Your task to perform on an android device: Go to Amazon Image 0: 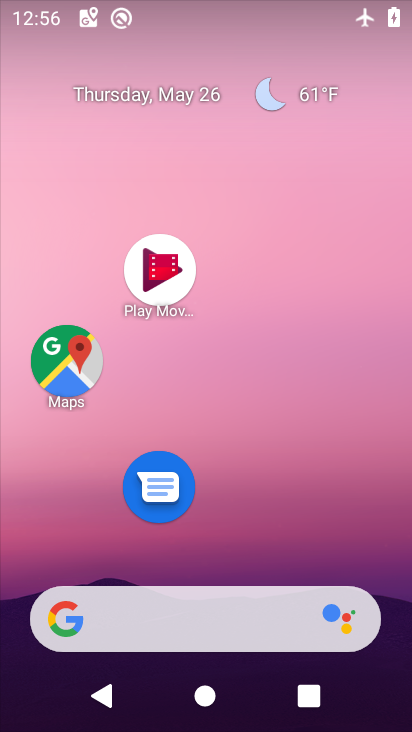
Step 0: drag from (249, 707) to (181, 109)
Your task to perform on an android device: Go to Amazon Image 1: 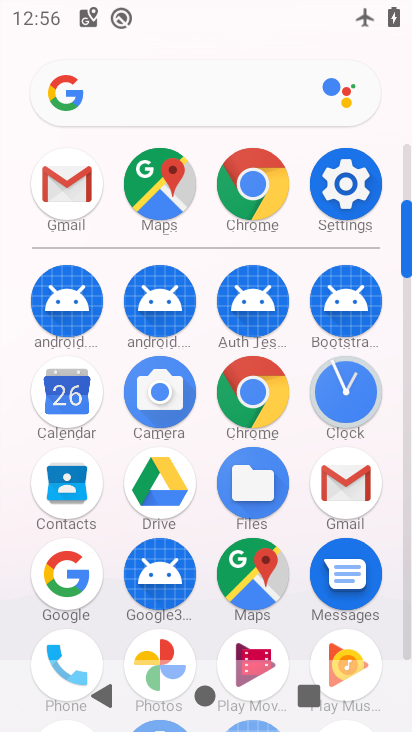
Step 1: click (240, 189)
Your task to perform on an android device: Go to Amazon Image 2: 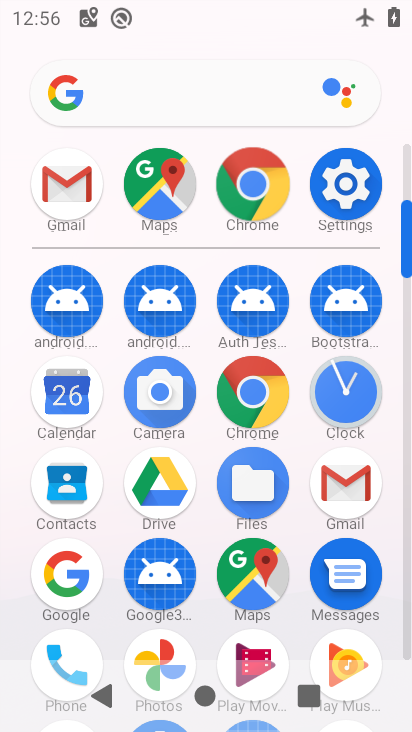
Step 2: click (240, 189)
Your task to perform on an android device: Go to Amazon Image 3: 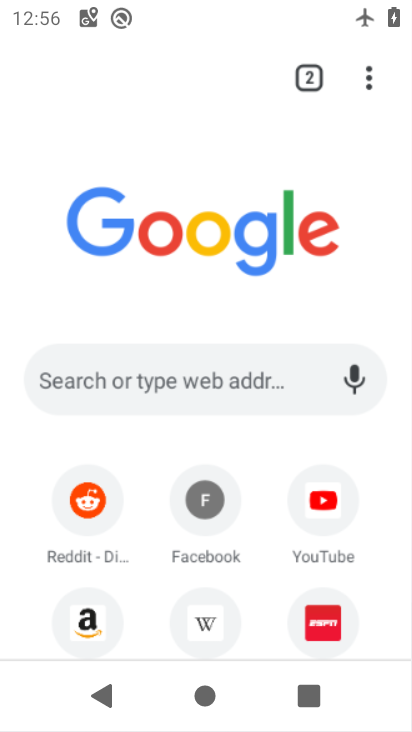
Step 3: click (240, 189)
Your task to perform on an android device: Go to Amazon Image 4: 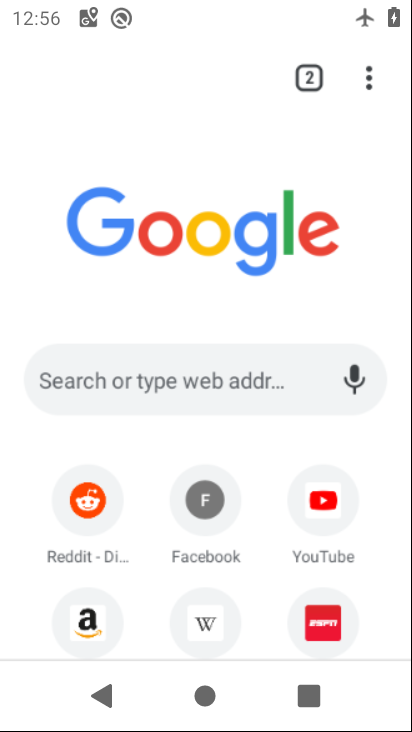
Step 4: click (240, 189)
Your task to perform on an android device: Go to Amazon Image 5: 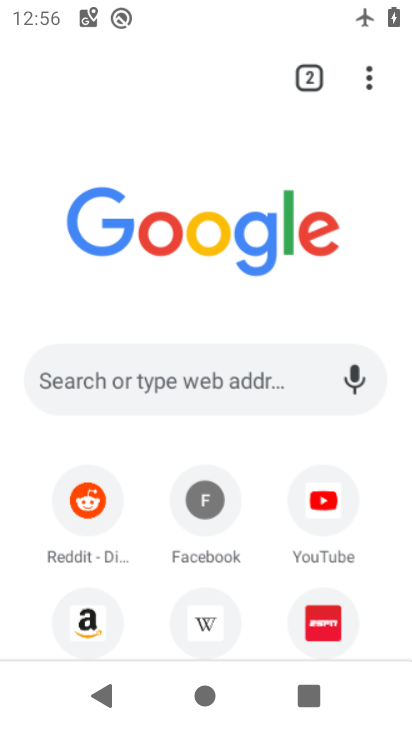
Step 5: click (240, 189)
Your task to perform on an android device: Go to Amazon Image 6: 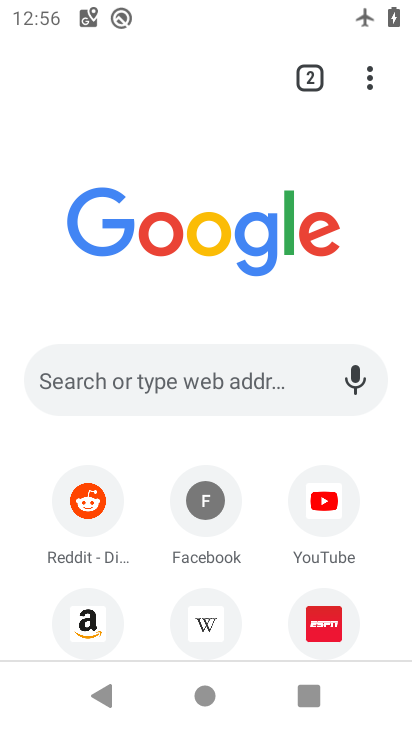
Step 6: drag from (367, 85) to (152, 101)
Your task to perform on an android device: Go to Amazon Image 7: 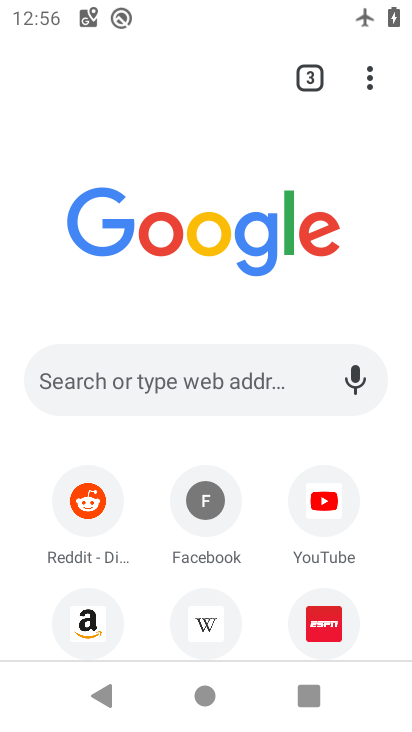
Step 7: drag from (366, 73) to (79, 155)
Your task to perform on an android device: Go to Amazon Image 8: 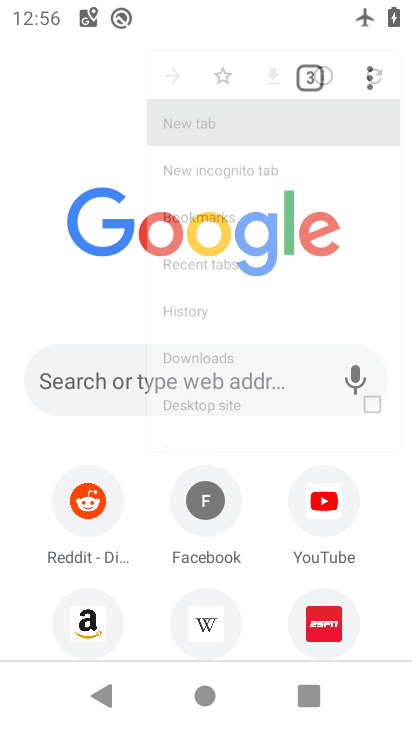
Step 8: click (79, 155)
Your task to perform on an android device: Go to Amazon Image 9: 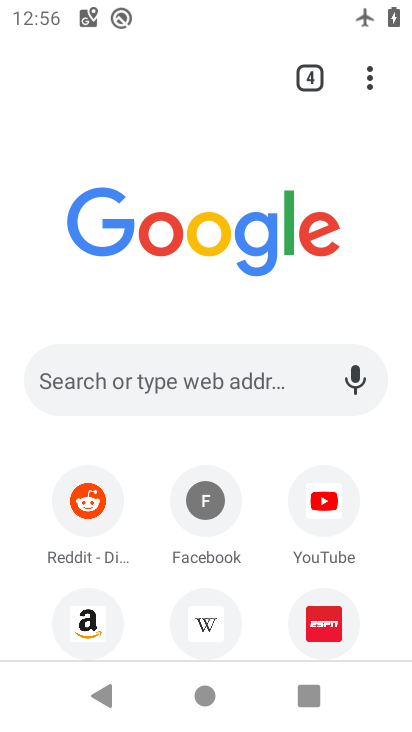
Step 9: click (92, 620)
Your task to perform on an android device: Go to Amazon Image 10: 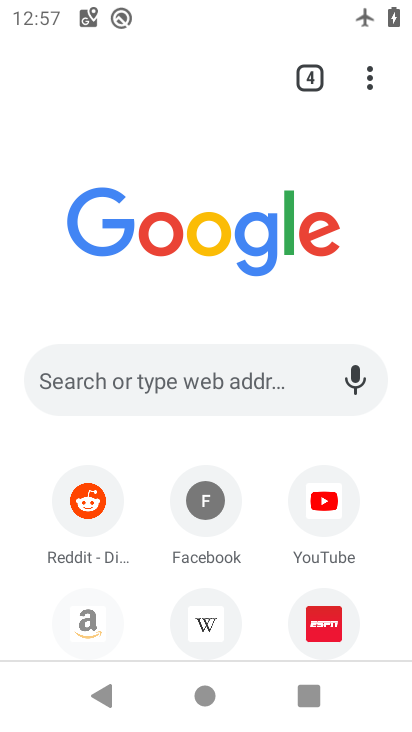
Step 10: click (94, 616)
Your task to perform on an android device: Go to Amazon Image 11: 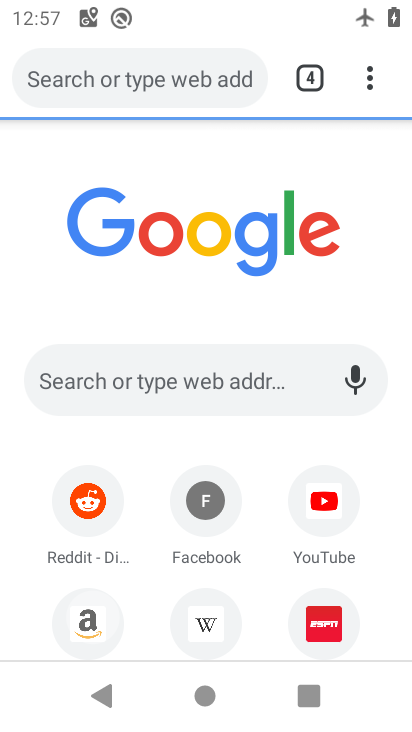
Step 11: click (97, 612)
Your task to perform on an android device: Go to Amazon Image 12: 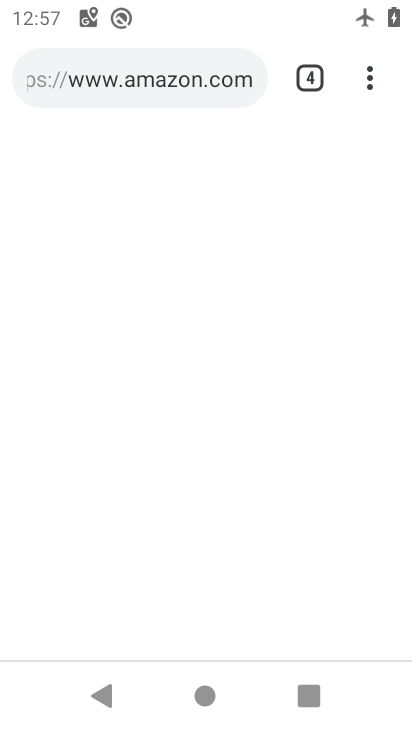
Step 12: click (98, 608)
Your task to perform on an android device: Go to Amazon Image 13: 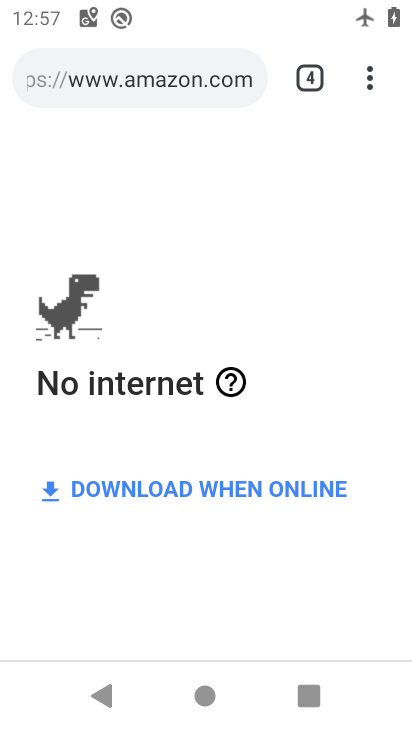
Step 13: task complete